Your task to perform on an android device: Go to Google Image 0: 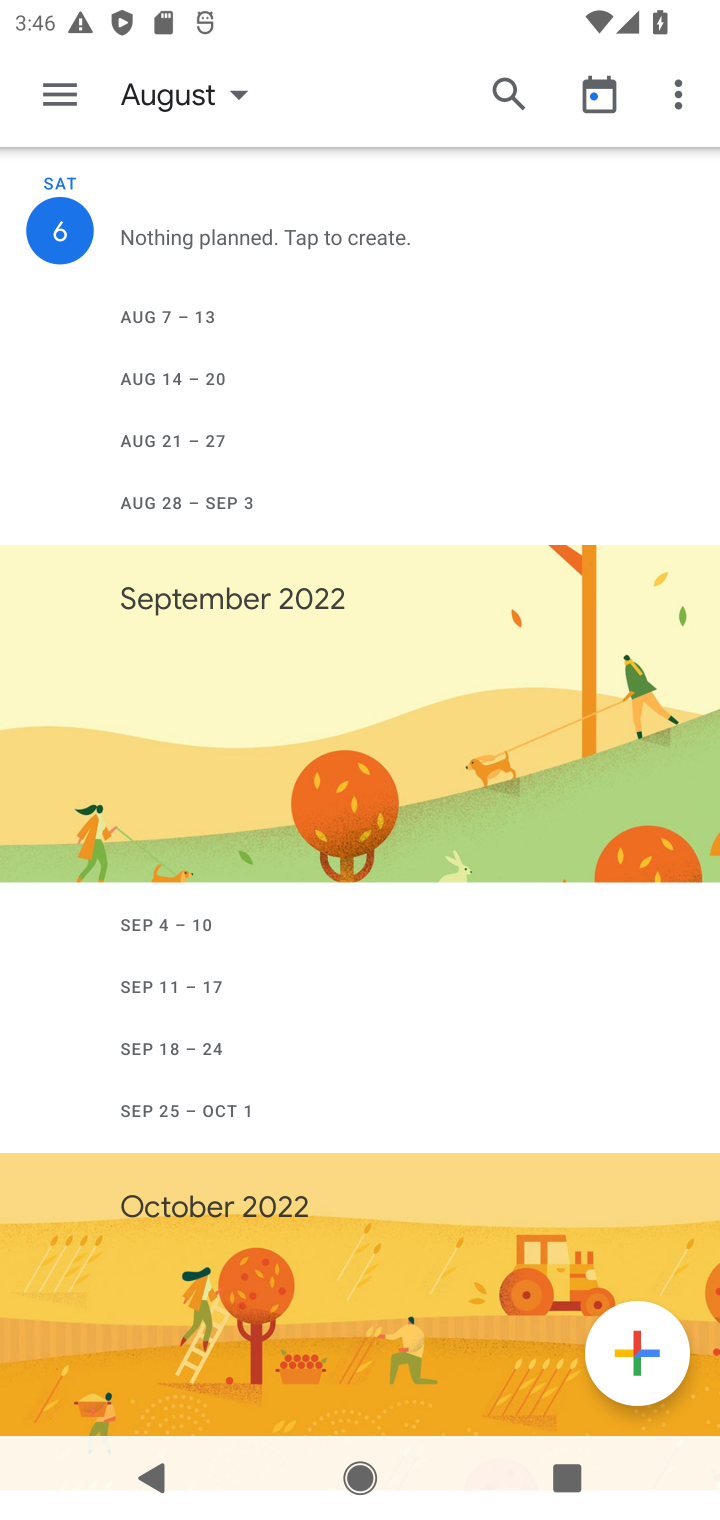
Step 0: press back button
Your task to perform on an android device: Go to Google Image 1: 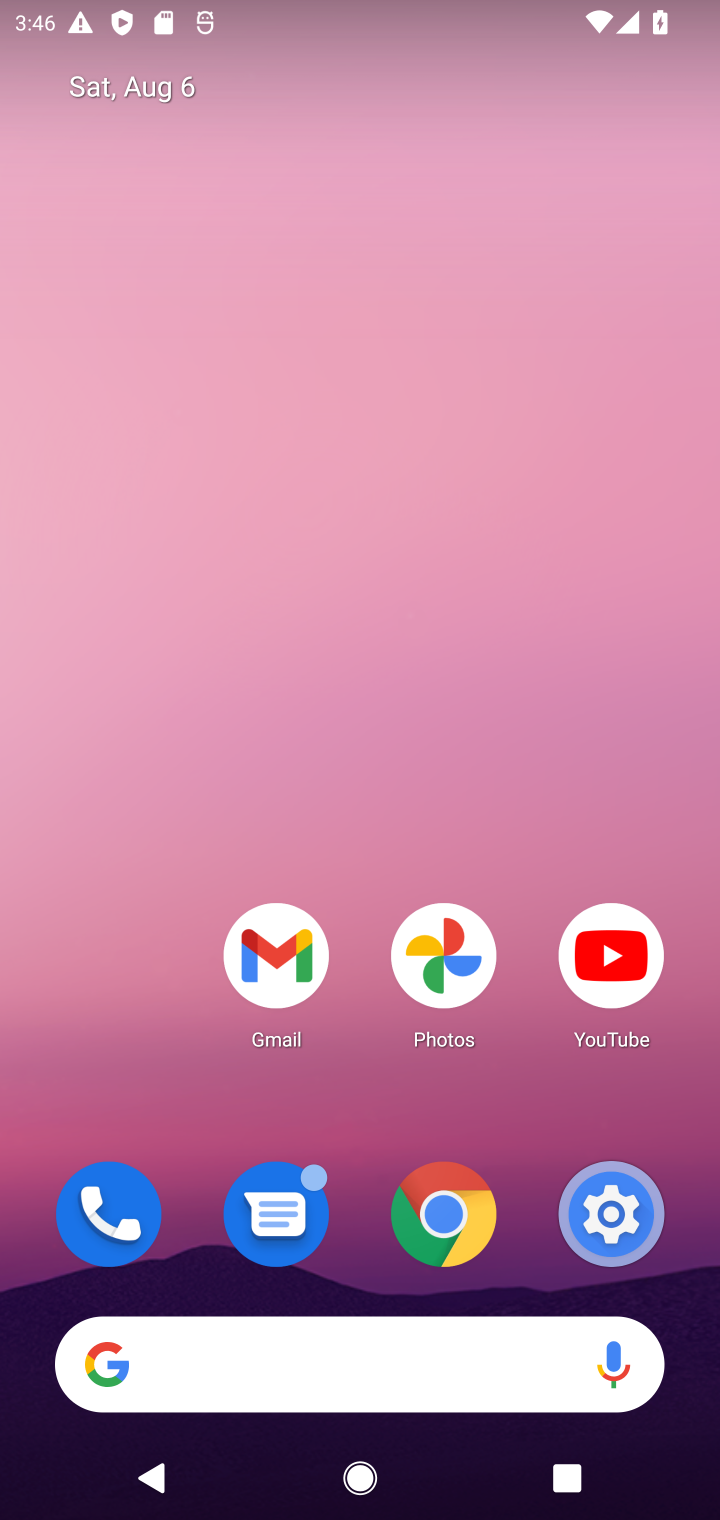
Step 1: click (208, 1357)
Your task to perform on an android device: Go to Google Image 2: 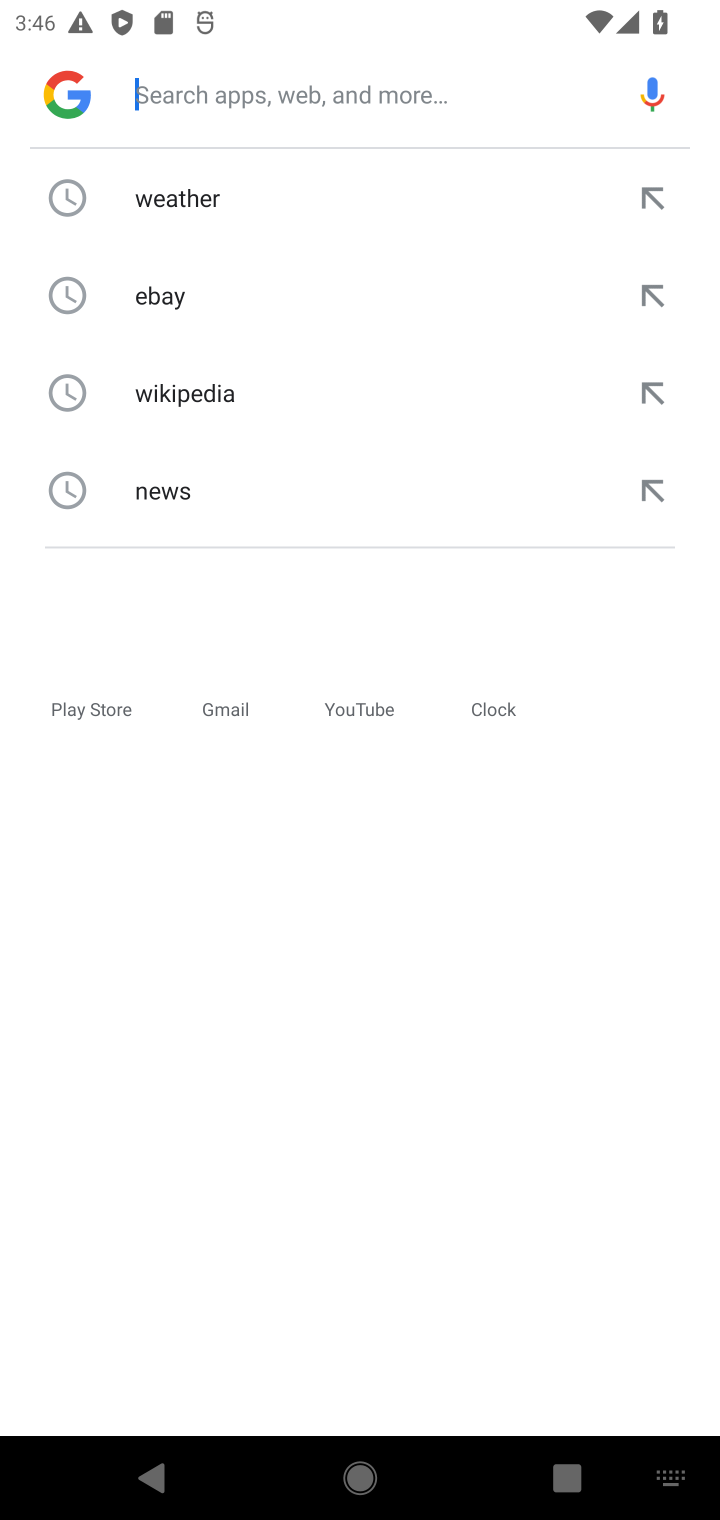
Step 2: task complete